Your task to perform on an android device: Open calendar and show me the second week of next month Image 0: 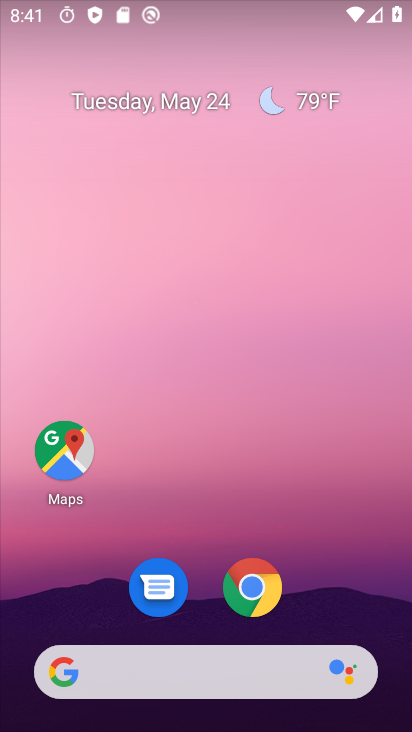
Step 0: drag from (338, 604) to (223, 140)
Your task to perform on an android device: Open calendar and show me the second week of next month Image 1: 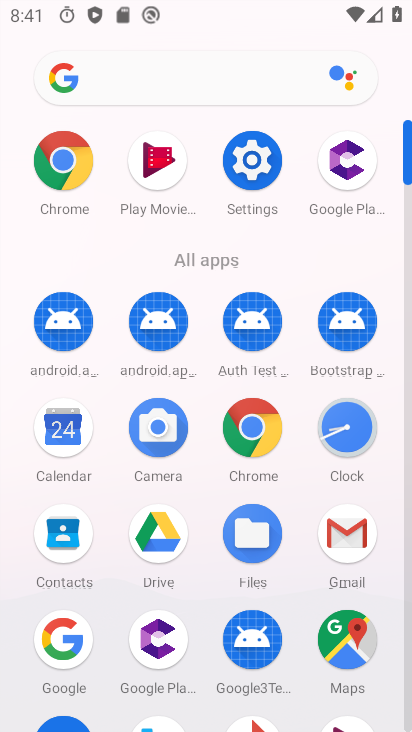
Step 1: click (64, 431)
Your task to perform on an android device: Open calendar and show me the second week of next month Image 2: 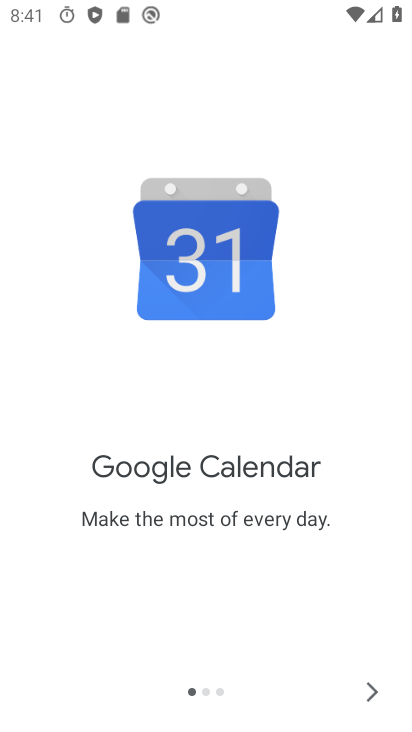
Step 2: click (371, 690)
Your task to perform on an android device: Open calendar and show me the second week of next month Image 3: 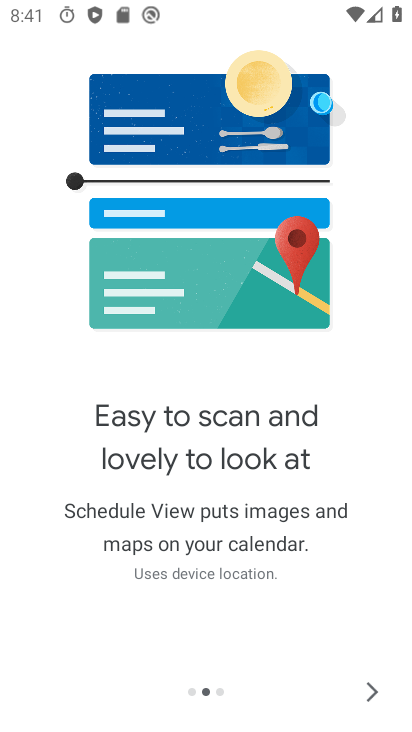
Step 3: click (371, 690)
Your task to perform on an android device: Open calendar and show me the second week of next month Image 4: 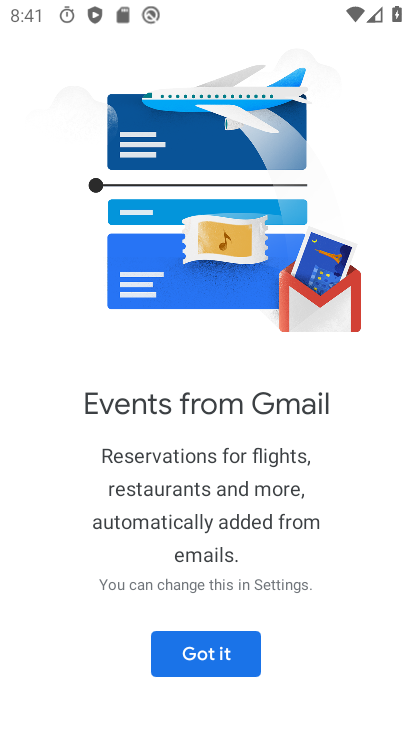
Step 4: click (210, 656)
Your task to perform on an android device: Open calendar and show me the second week of next month Image 5: 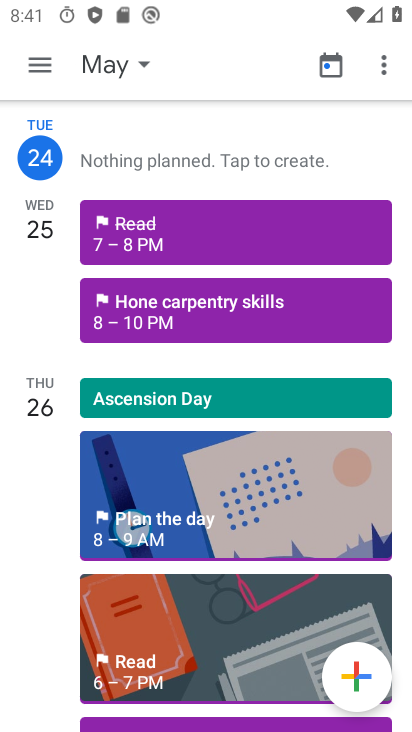
Step 5: click (144, 68)
Your task to perform on an android device: Open calendar and show me the second week of next month Image 6: 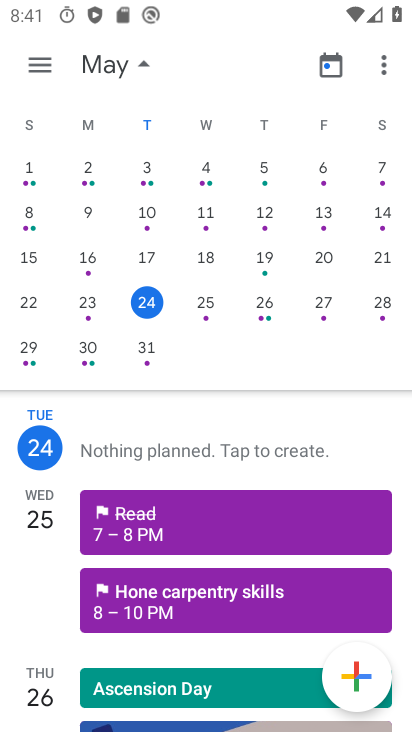
Step 6: drag from (322, 274) to (28, 322)
Your task to perform on an android device: Open calendar and show me the second week of next month Image 7: 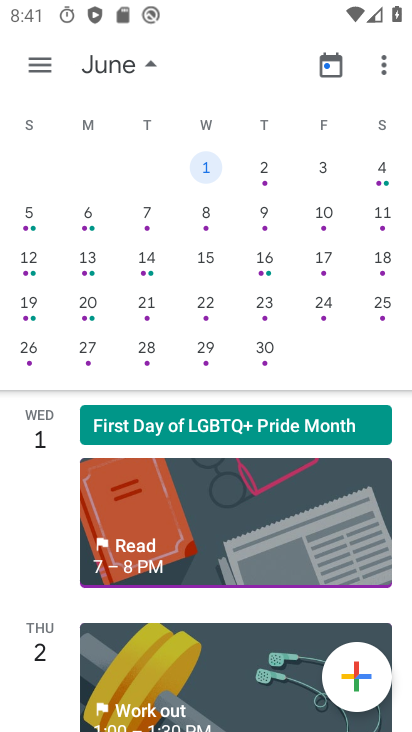
Step 7: click (92, 252)
Your task to perform on an android device: Open calendar and show me the second week of next month Image 8: 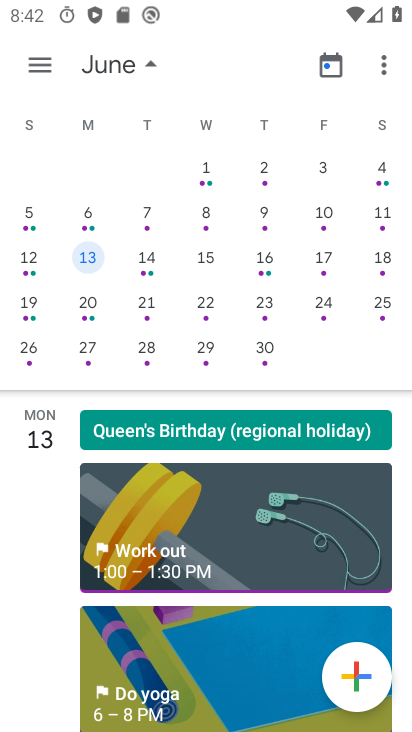
Step 8: click (40, 67)
Your task to perform on an android device: Open calendar and show me the second week of next month Image 9: 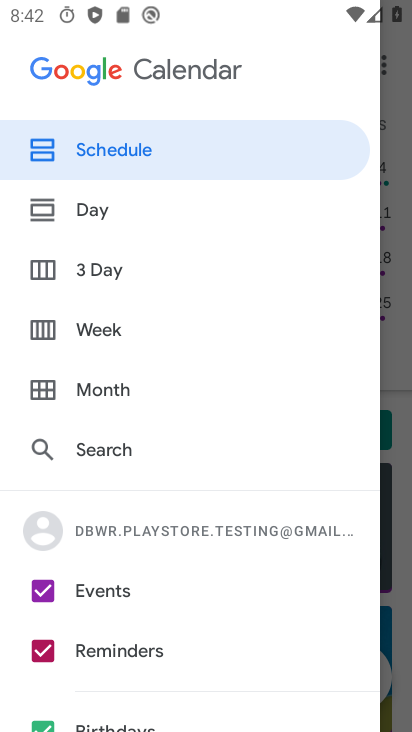
Step 9: click (121, 332)
Your task to perform on an android device: Open calendar and show me the second week of next month Image 10: 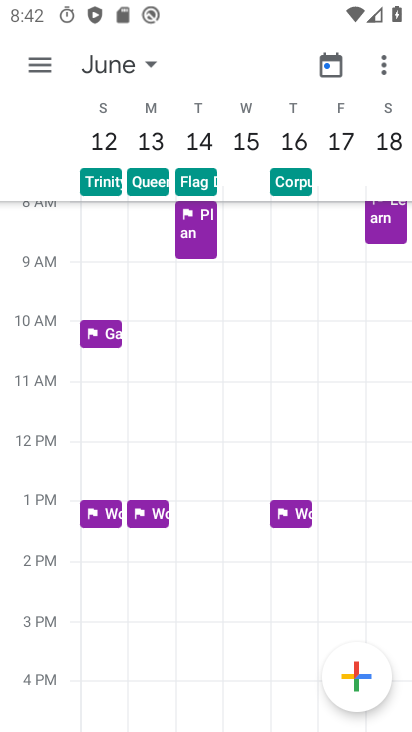
Step 10: task complete